Your task to perform on an android device: Open the phone app and click the voicemail tab. Image 0: 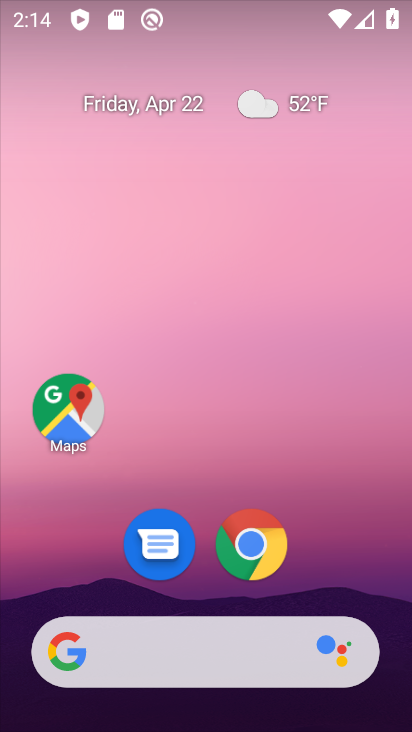
Step 0: drag from (225, 598) to (246, 87)
Your task to perform on an android device: Open the phone app and click the voicemail tab. Image 1: 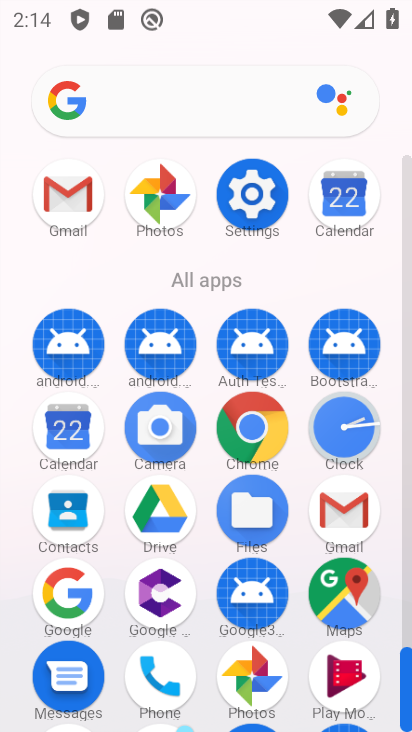
Step 1: click (161, 667)
Your task to perform on an android device: Open the phone app and click the voicemail tab. Image 2: 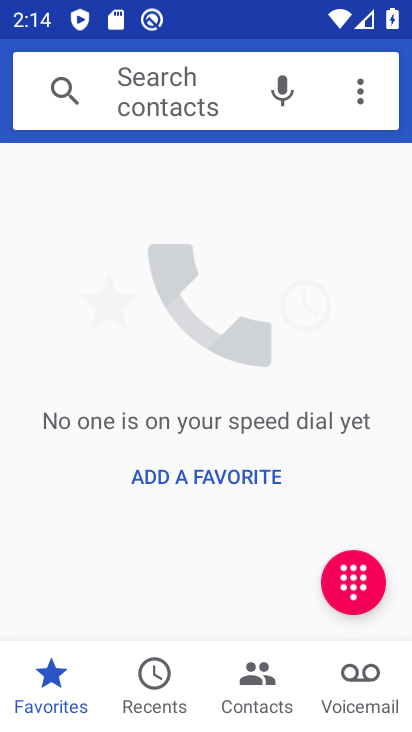
Step 2: click (370, 689)
Your task to perform on an android device: Open the phone app and click the voicemail tab. Image 3: 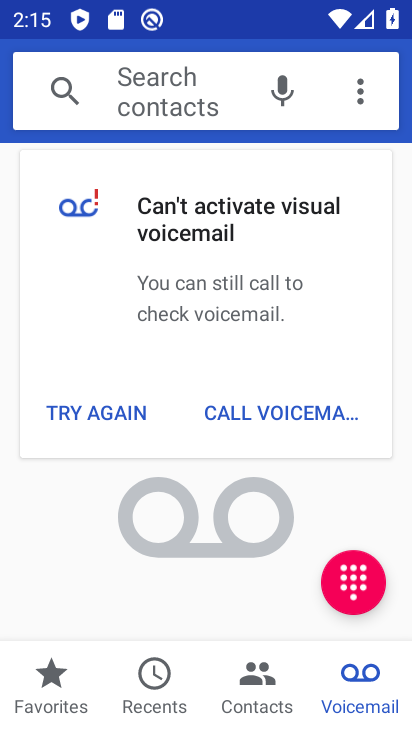
Step 3: task complete